Your task to perform on an android device: open app "McDonald's" (install if not already installed) Image 0: 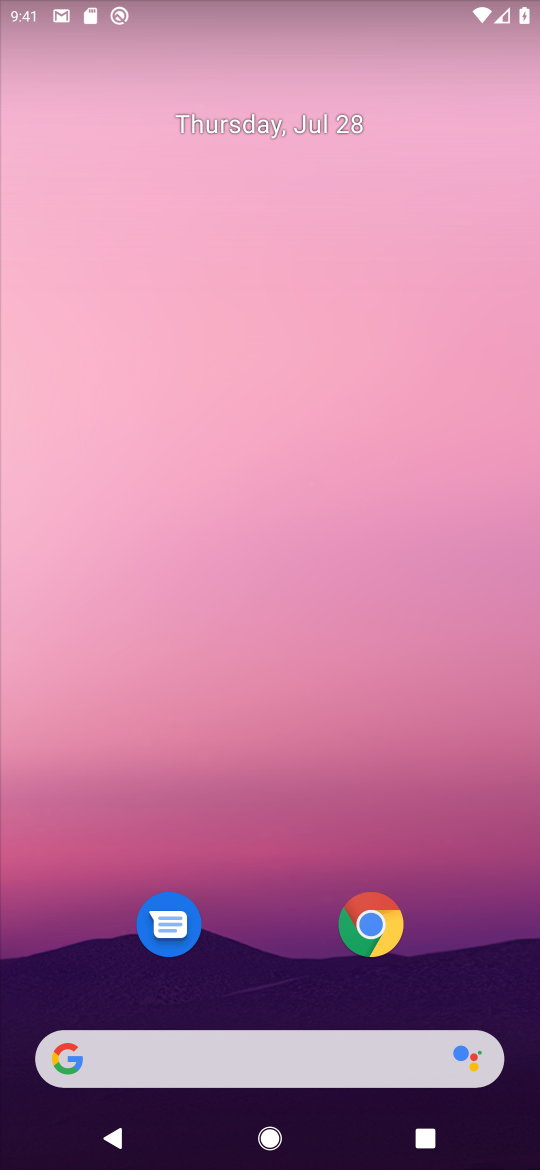
Step 0: drag from (303, 839) to (329, 72)
Your task to perform on an android device: open app "McDonald's" (install if not already installed) Image 1: 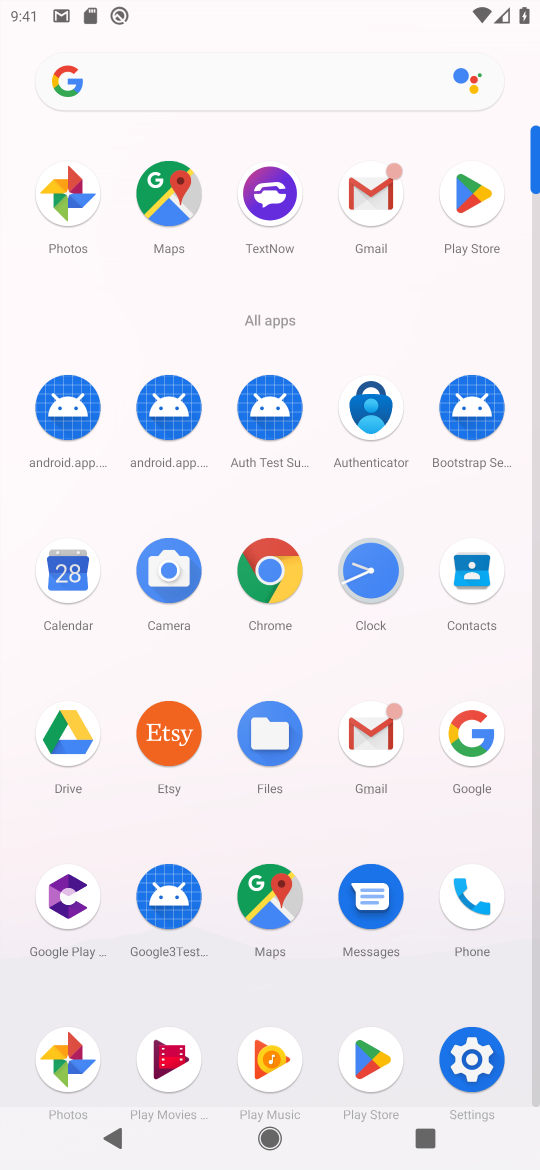
Step 1: click (388, 1087)
Your task to perform on an android device: open app "McDonald's" (install if not already installed) Image 2: 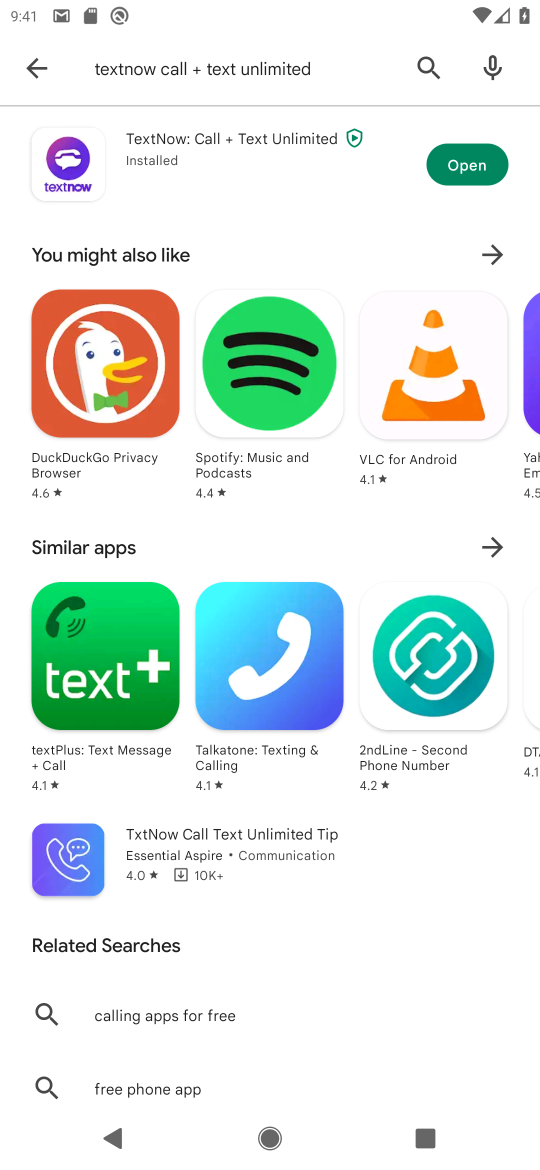
Step 2: click (437, 66)
Your task to perform on an android device: open app "McDonald's" (install if not already installed) Image 3: 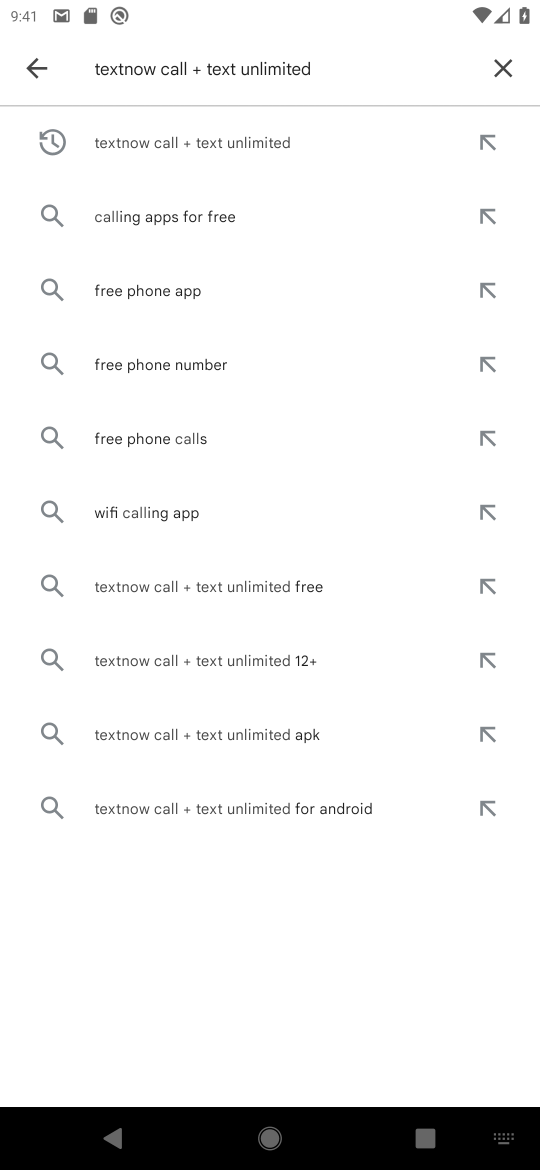
Step 3: click (499, 68)
Your task to perform on an android device: open app "McDonald's" (install if not already installed) Image 4: 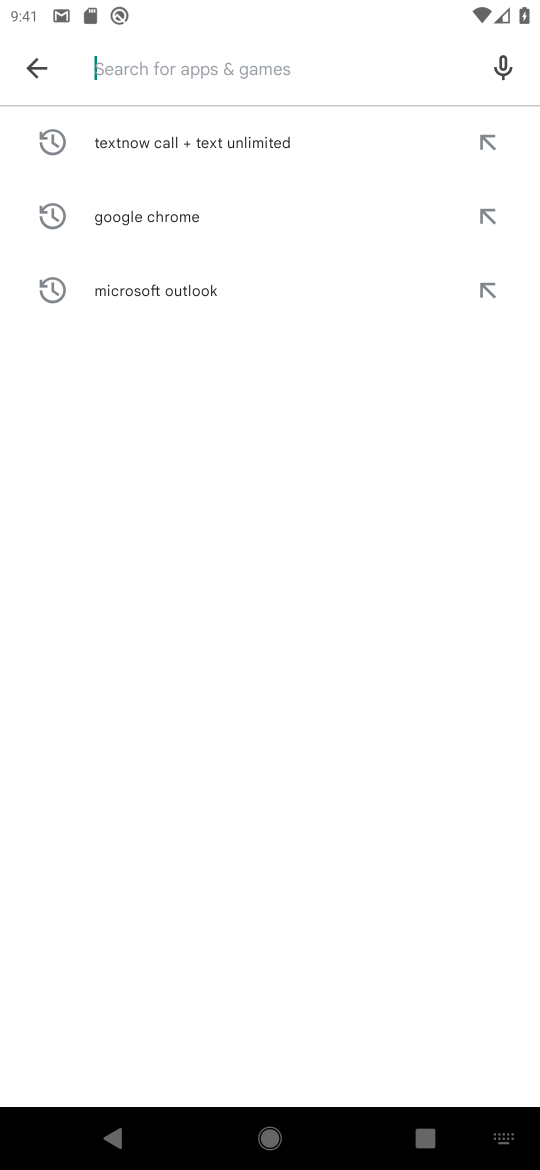
Step 4: type "mcdonald"
Your task to perform on an android device: open app "McDonald's" (install if not already installed) Image 5: 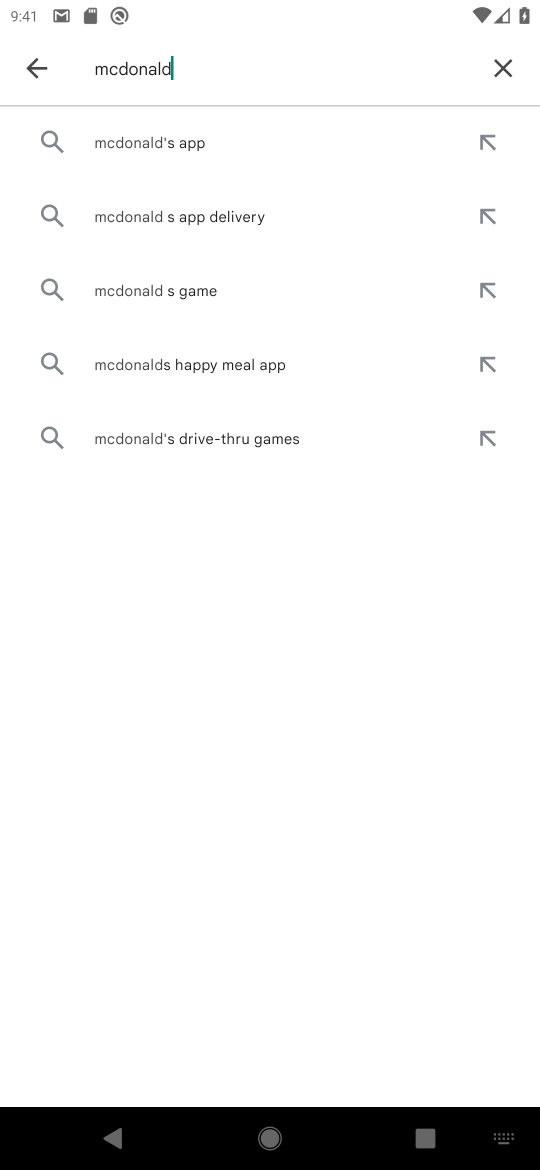
Step 5: click (212, 141)
Your task to perform on an android device: open app "McDonald's" (install if not already installed) Image 6: 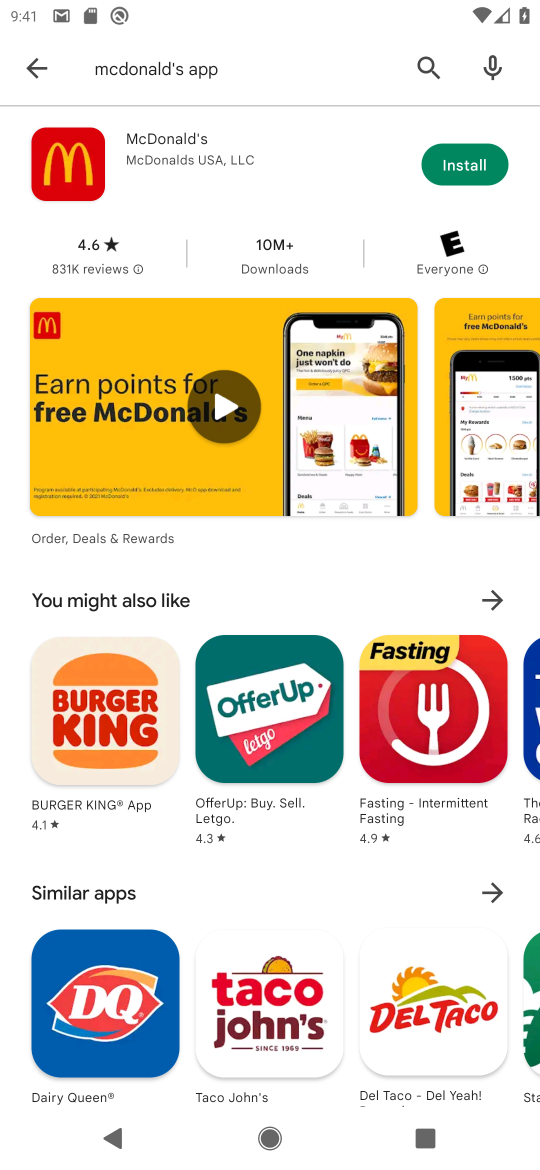
Step 6: click (456, 170)
Your task to perform on an android device: open app "McDonald's" (install if not already installed) Image 7: 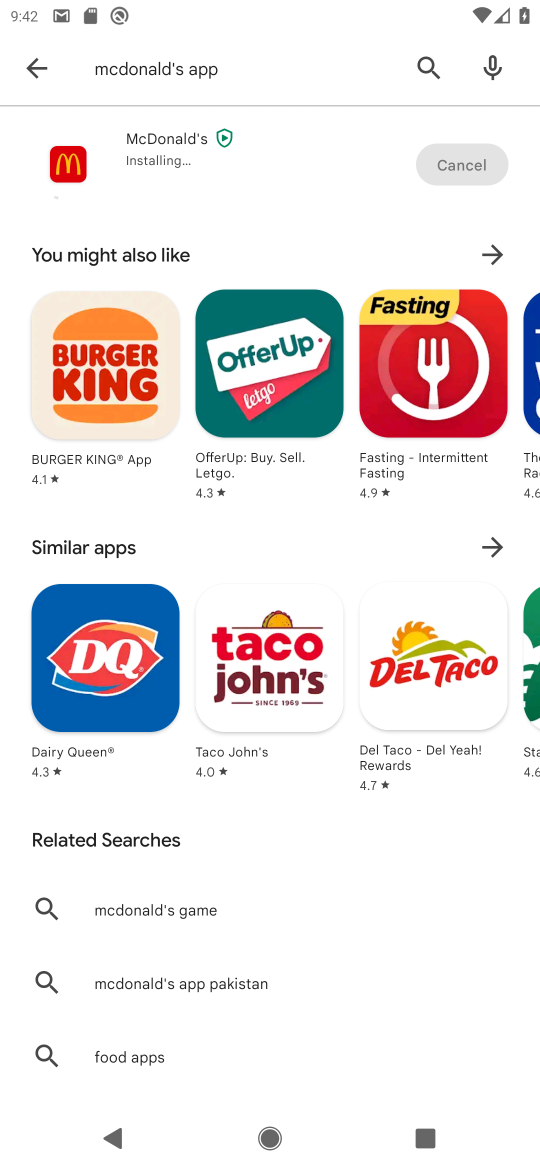
Step 7: drag from (202, 769) to (93, 1032)
Your task to perform on an android device: open app "McDonald's" (install if not already installed) Image 8: 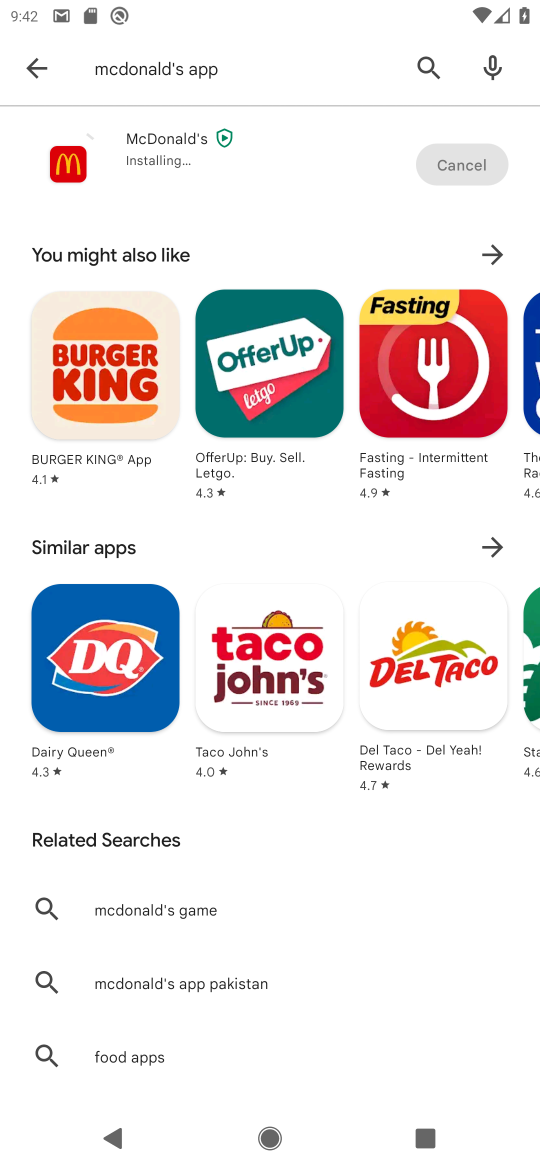
Step 8: drag from (242, 835) to (201, 1150)
Your task to perform on an android device: open app "McDonald's" (install if not already installed) Image 9: 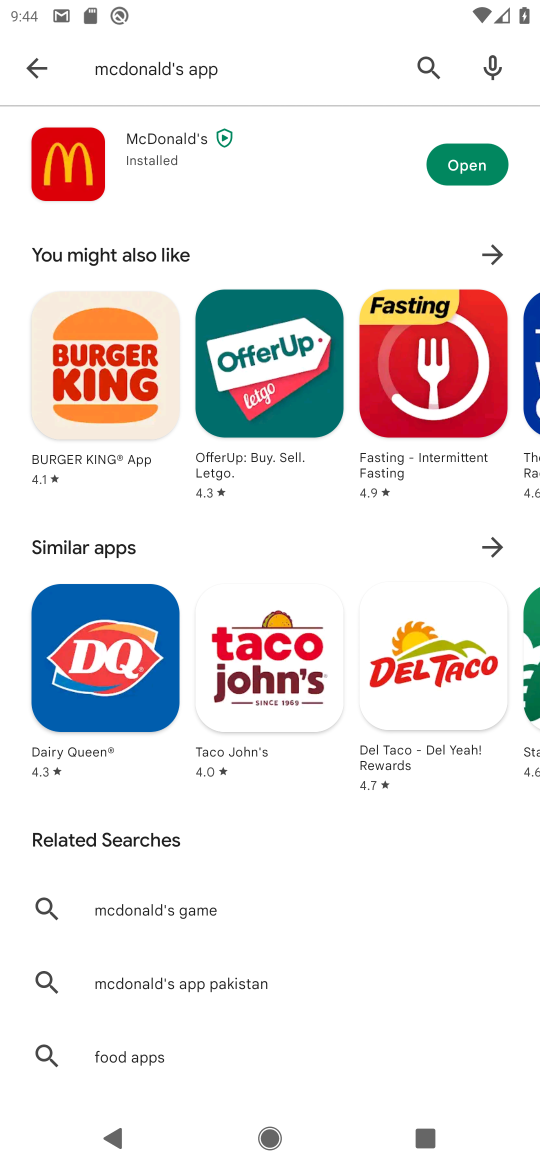
Step 9: click (462, 167)
Your task to perform on an android device: open app "McDonald's" (install if not already installed) Image 10: 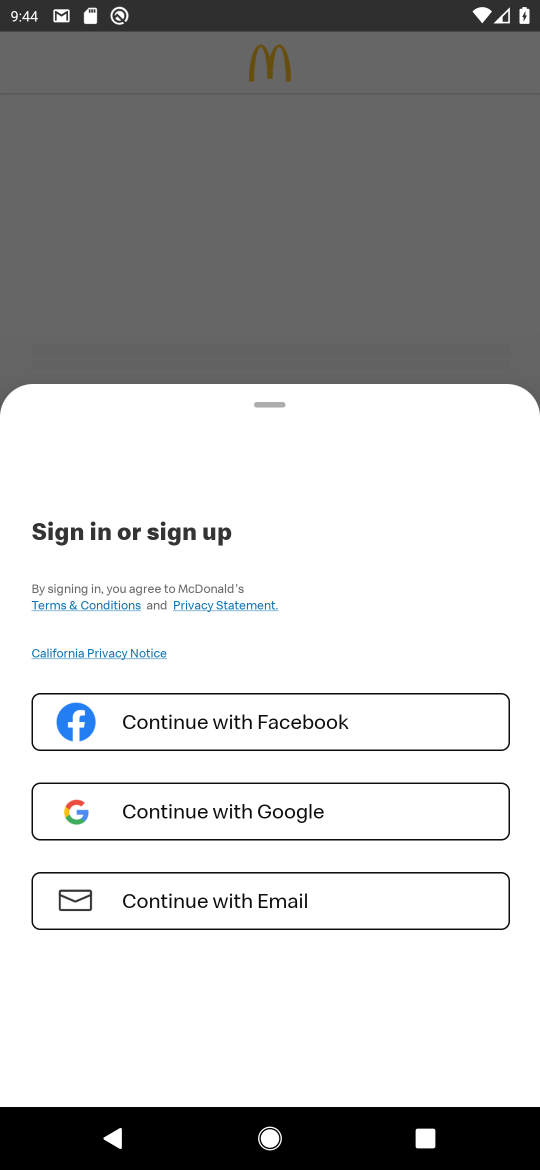
Step 10: task complete